Your task to perform on an android device: Open Google Chrome and click the shortcut for Amazon.com Image 0: 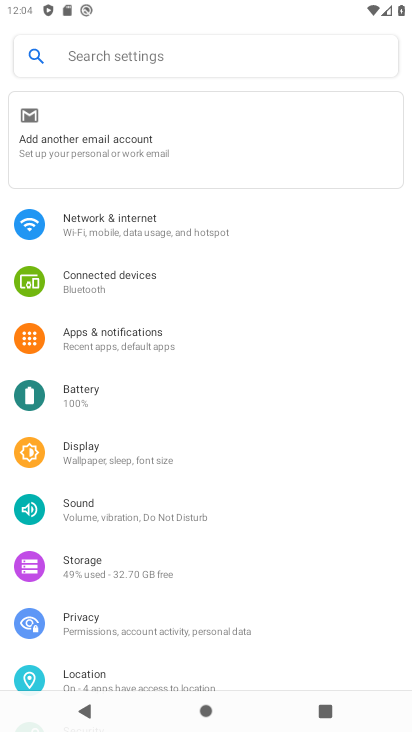
Step 0: press home button
Your task to perform on an android device: Open Google Chrome and click the shortcut for Amazon.com Image 1: 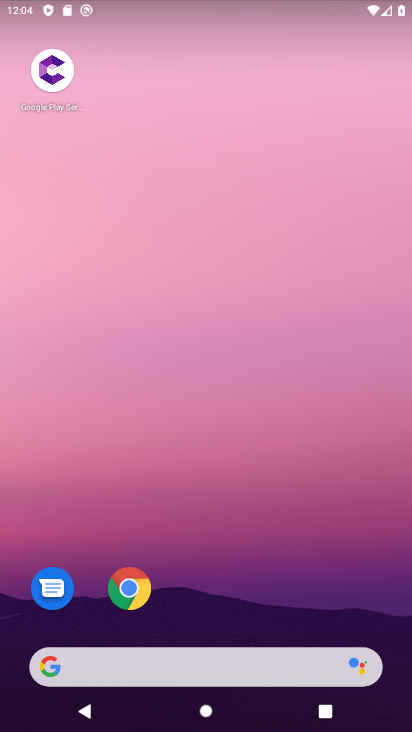
Step 1: click (128, 590)
Your task to perform on an android device: Open Google Chrome and click the shortcut for Amazon.com Image 2: 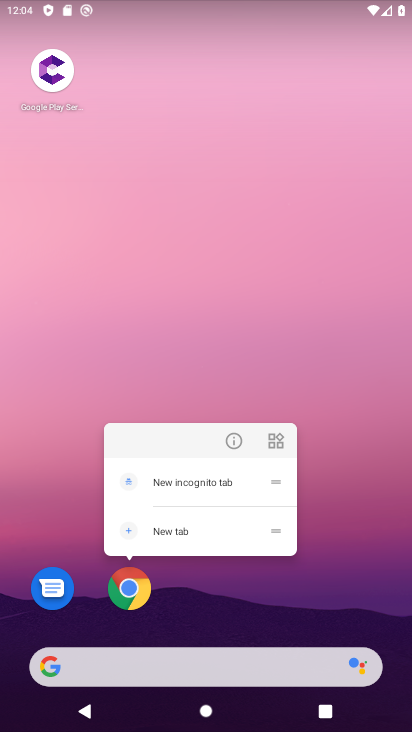
Step 2: click (142, 591)
Your task to perform on an android device: Open Google Chrome and click the shortcut for Amazon.com Image 3: 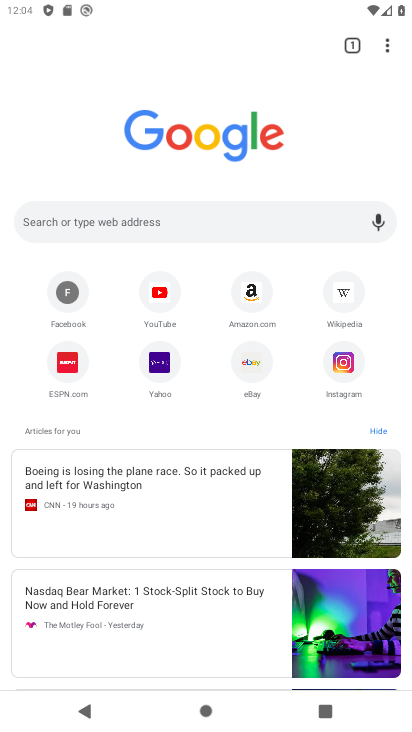
Step 3: click (257, 289)
Your task to perform on an android device: Open Google Chrome and click the shortcut for Amazon.com Image 4: 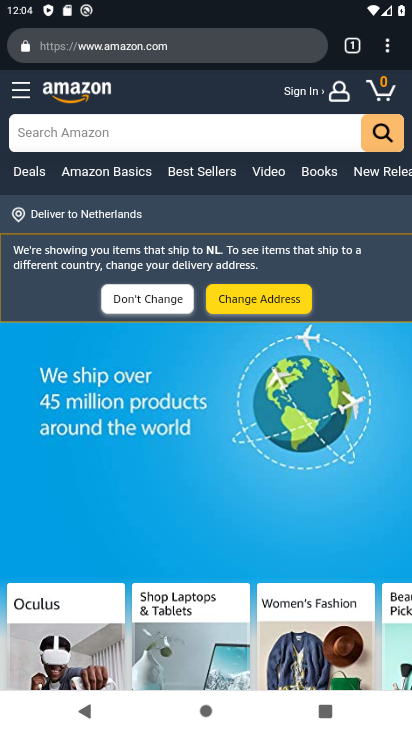
Step 4: task complete